Your task to perform on an android device: Open the map Image 0: 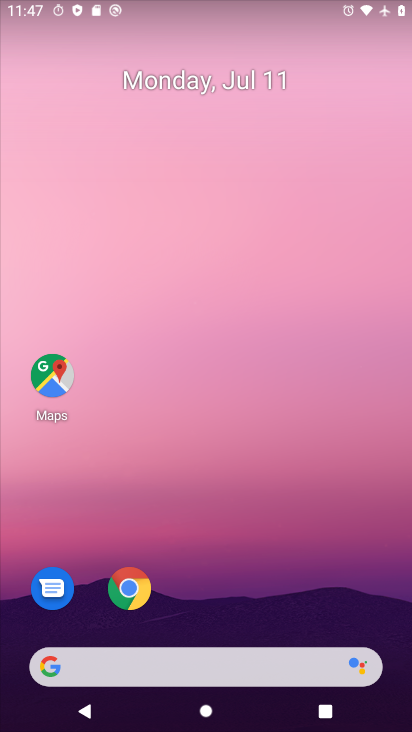
Step 0: click (47, 392)
Your task to perform on an android device: Open the map Image 1: 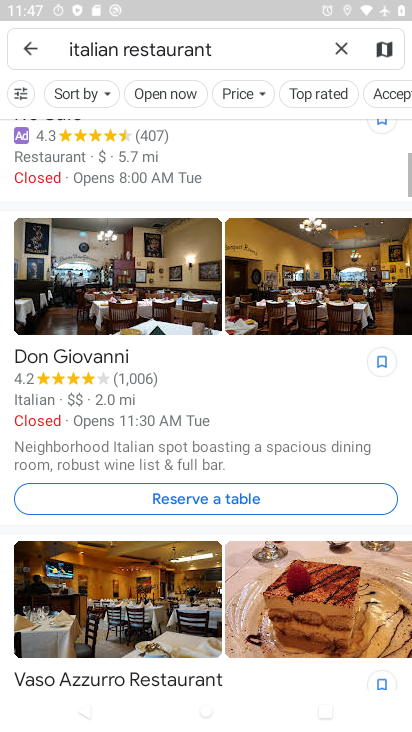
Step 1: click (34, 50)
Your task to perform on an android device: Open the map Image 2: 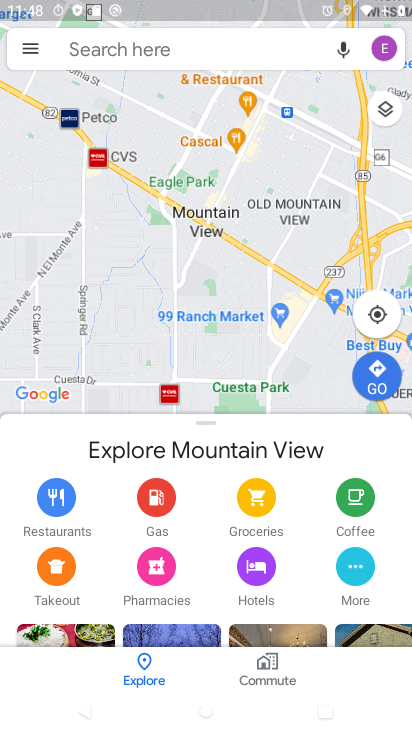
Step 2: task complete